Your task to perform on an android device: toggle wifi Image 0: 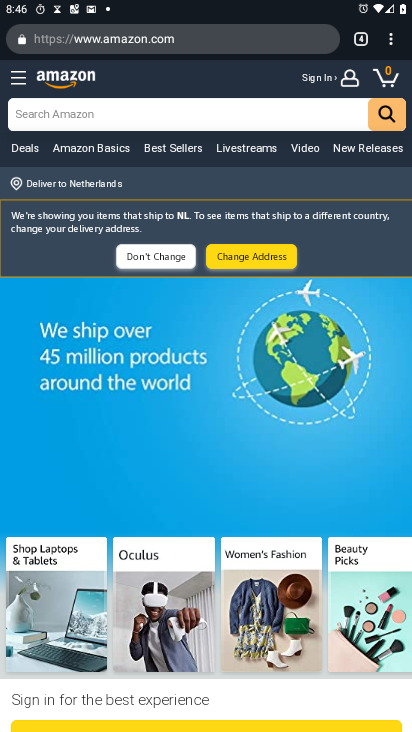
Step 0: press home button
Your task to perform on an android device: toggle wifi Image 1: 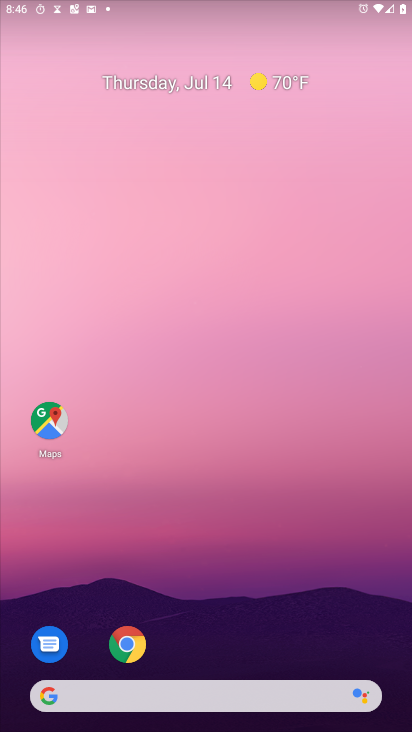
Step 1: drag from (193, 673) to (287, 44)
Your task to perform on an android device: toggle wifi Image 2: 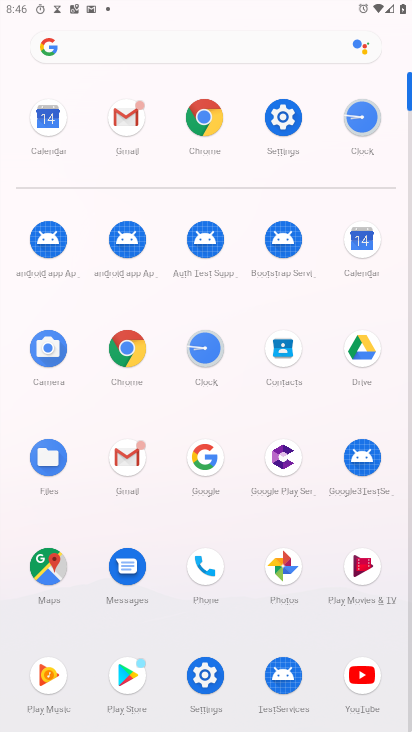
Step 2: click (292, 116)
Your task to perform on an android device: toggle wifi Image 3: 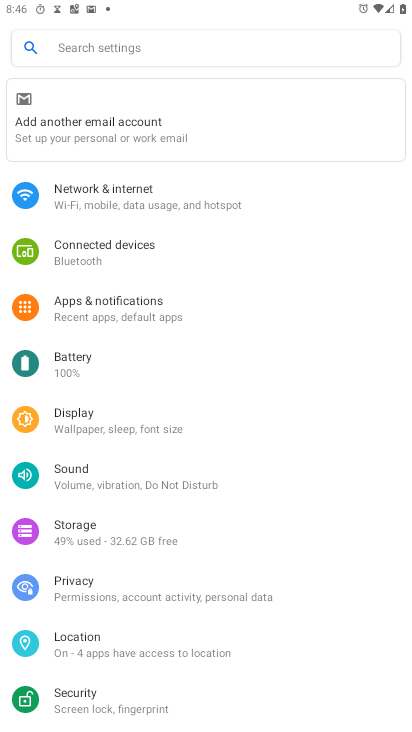
Step 3: click (165, 210)
Your task to perform on an android device: toggle wifi Image 4: 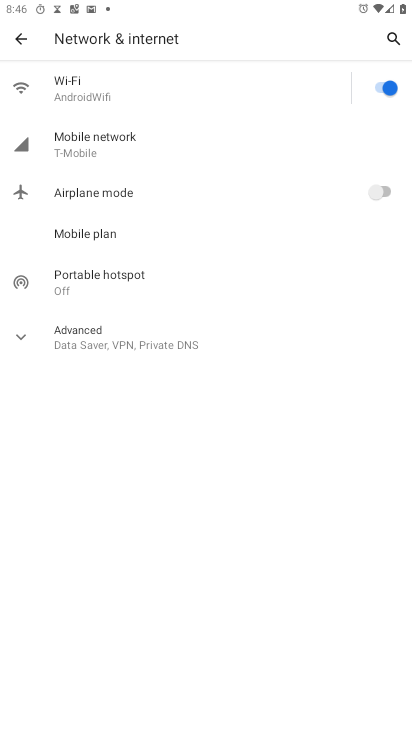
Step 4: click (376, 86)
Your task to perform on an android device: toggle wifi Image 5: 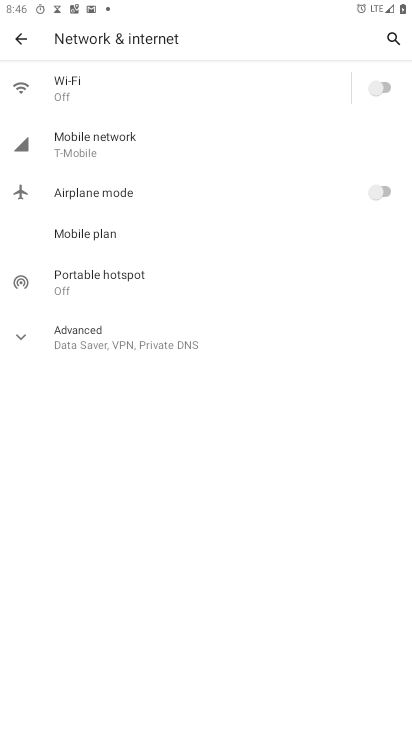
Step 5: task complete